Your task to perform on an android device: change the clock display to show seconds Image 0: 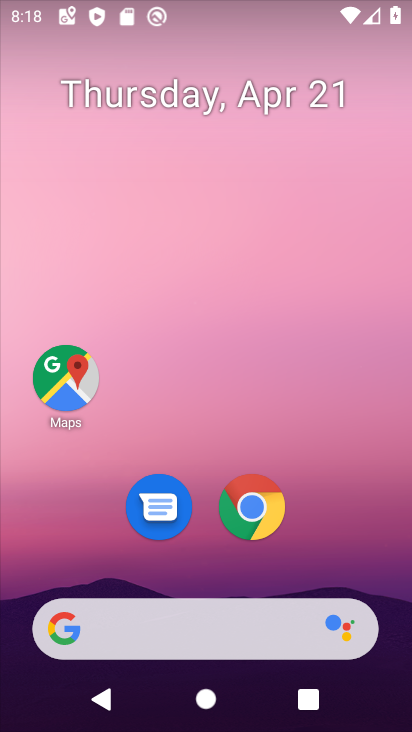
Step 0: press home button
Your task to perform on an android device: change the clock display to show seconds Image 1: 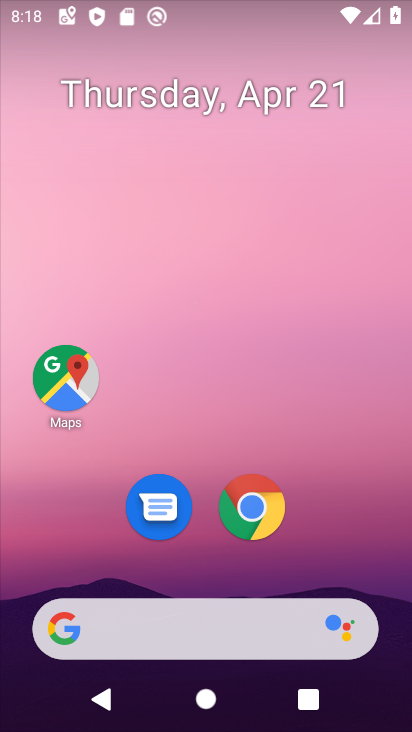
Step 1: drag from (359, 527) to (360, 131)
Your task to perform on an android device: change the clock display to show seconds Image 2: 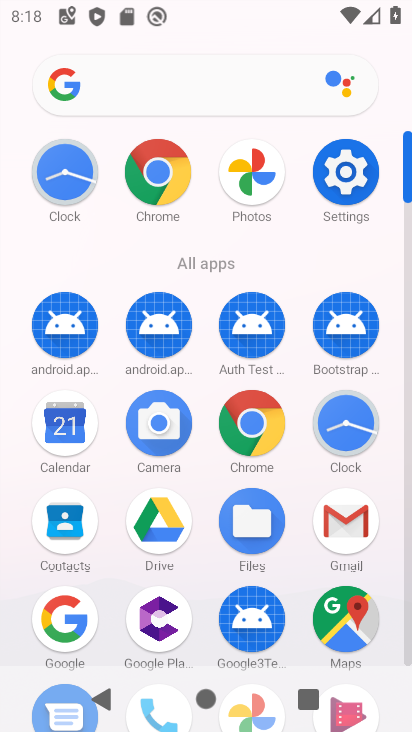
Step 2: click (340, 411)
Your task to perform on an android device: change the clock display to show seconds Image 3: 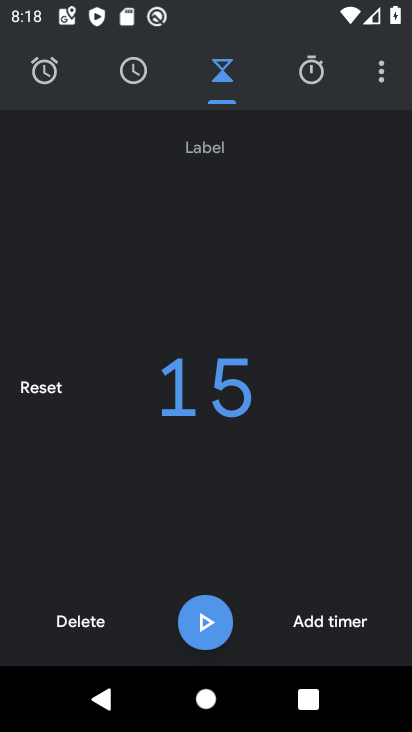
Step 3: click (377, 81)
Your task to perform on an android device: change the clock display to show seconds Image 4: 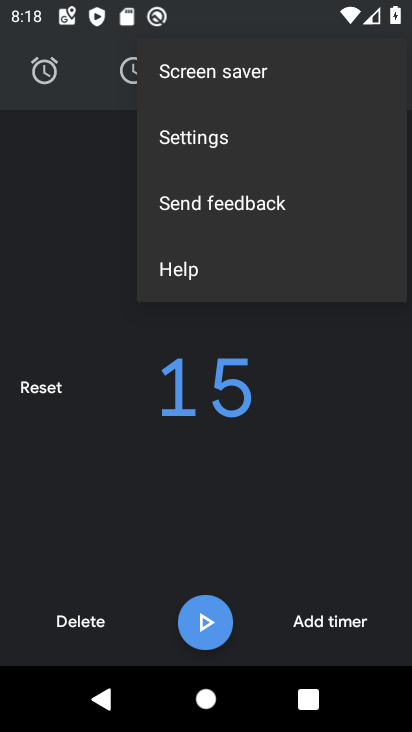
Step 4: click (234, 137)
Your task to perform on an android device: change the clock display to show seconds Image 5: 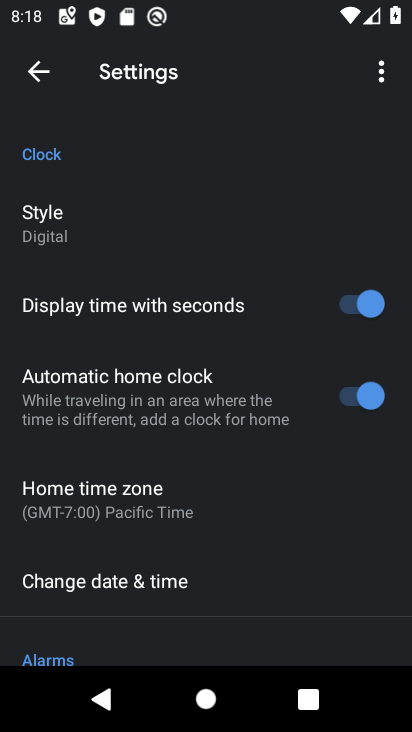
Step 5: task complete